Your task to perform on an android device: change the upload size in google photos Image 0: 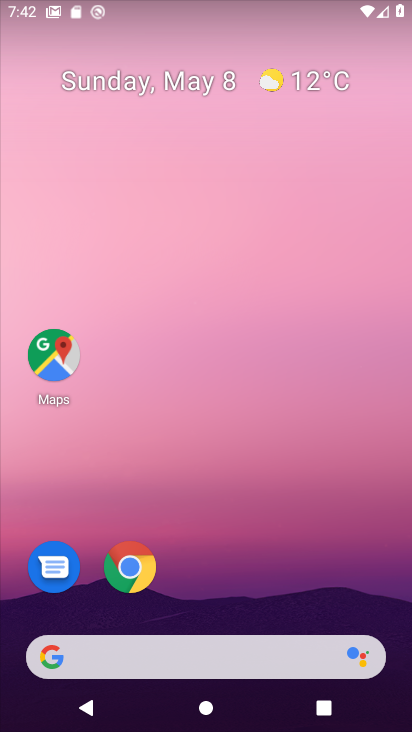
Step 0: drag from (143, 618) to (202, 171)
Your task to perform on an android device: change the upload size in google photos Image 1: 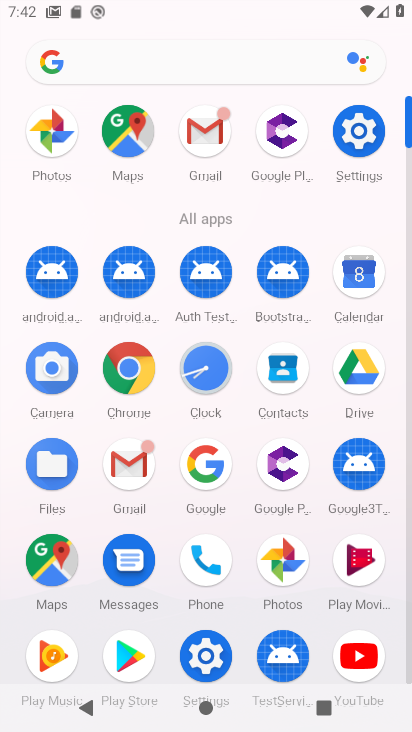
Step 1: click (46, 131)
Your task to perform on an android device: change the upload size in google photos Image 2: 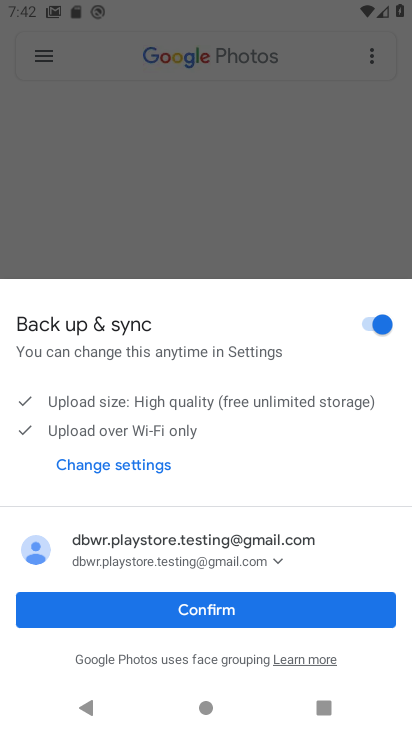
Step 2: click (234, 613)
Your task to perform on an android device: change the upload size in google photos Image 3: 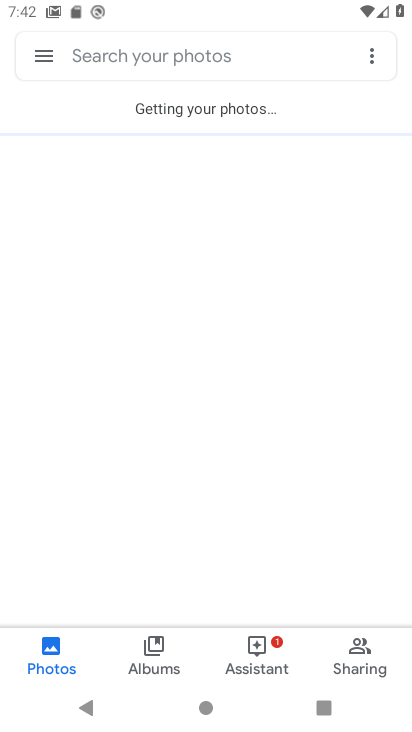
Step 3: click (40, 62)
Your task to perform on an android device: change the upload size in google photos Image 4: 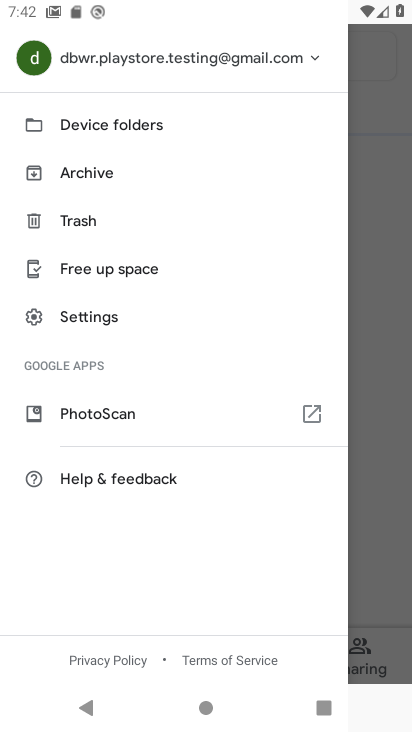
Step 4: click (102, 323)
Your task to perform on an android device: change the upload size in google photos Image 5: 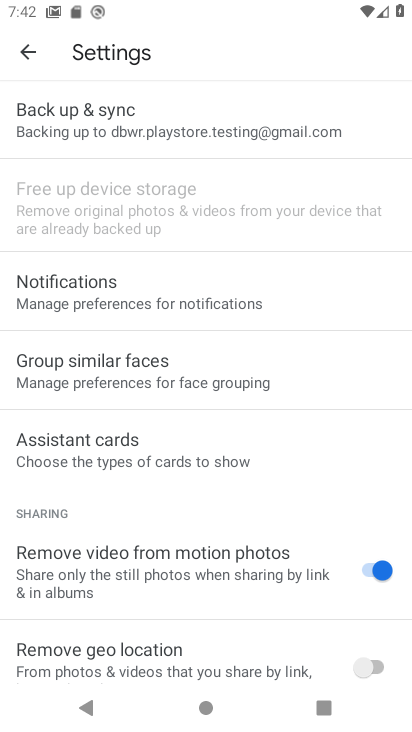
Step 5: click (128, 132)
Your task to perform on an android device: change the upload size in google photos Image 6: 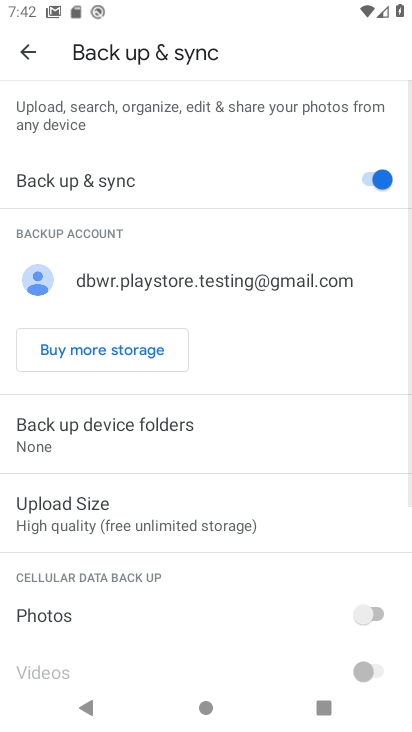
Step 6: click (131, 509)
Your task to perform on an android device: change the upload size in google photos Image 7: 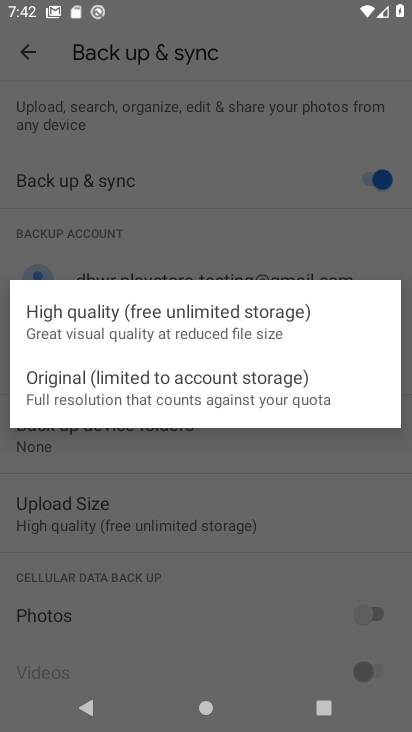
Step 7: click (215, 331)
Your task to perform on an android device: change the upload size in google photos Image 8: 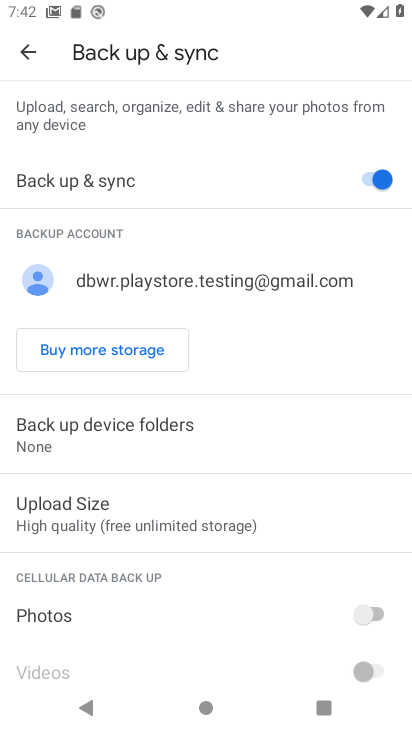
Step 8: task complete